Your task to perform on an android device: toggle data saver in the chrome app Image 0: 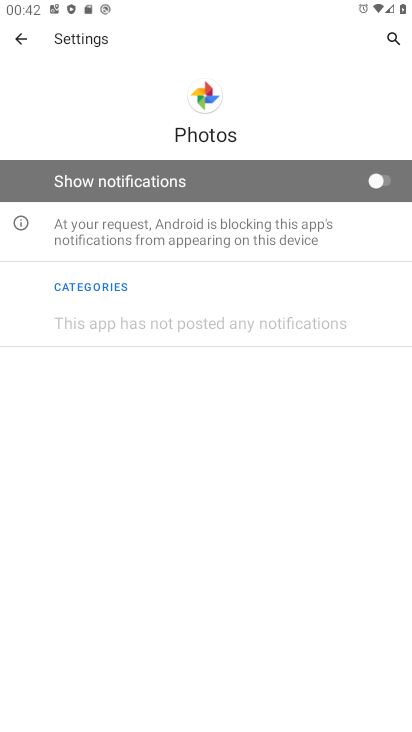
Step 0: press home button
Your task to perform on an android device: toggle data saver in the chrome app Image 1: 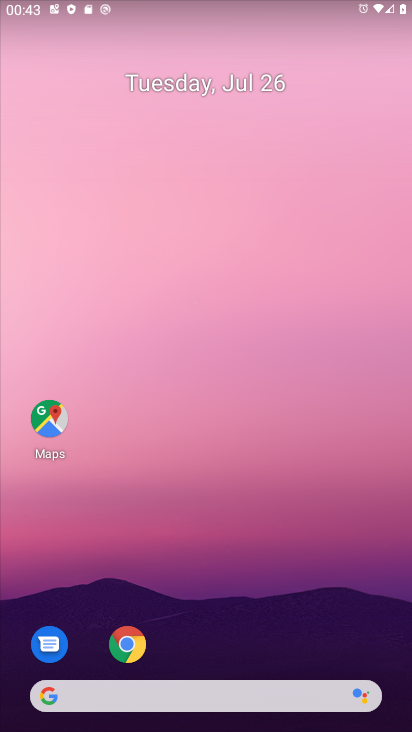
Step 1: drag from (269, 452) to (245, 242)
Your task to perform on an android device: toggle data saver in the chrome app Image 2: 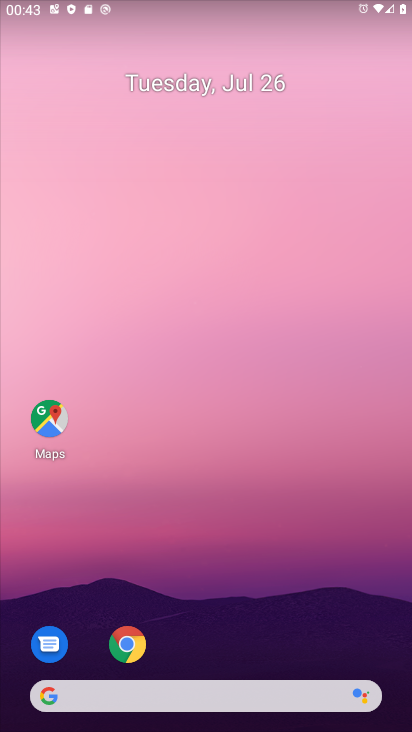
Step 2: drag from (276, 620) to (183, 14)
Your task to perform on an android device: toggle data saver in the chrome app Image 3: 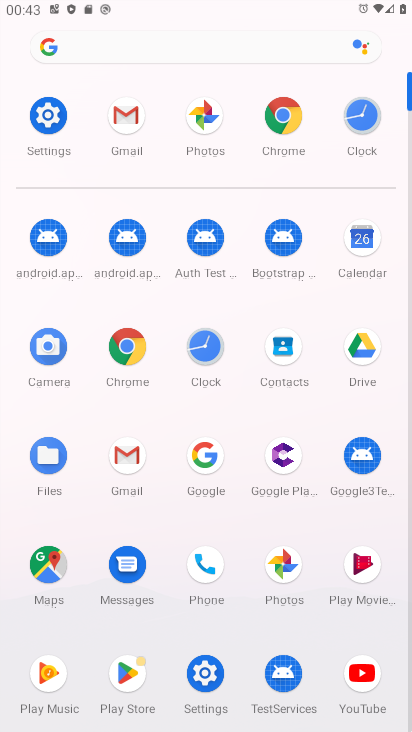
Step 3: click (123, 353)
Your task to perform on an android device: toggle data saver in the chrome app Image 4: 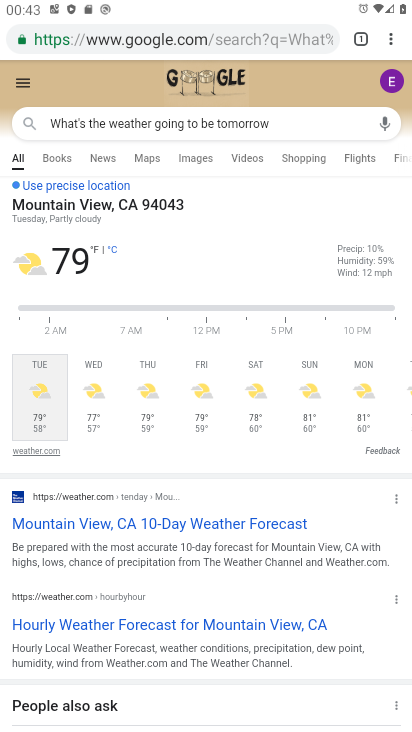
Step 4: click (392, 37)
Your task to perform on an android device: toggle data saver in the chrome app Image 5: 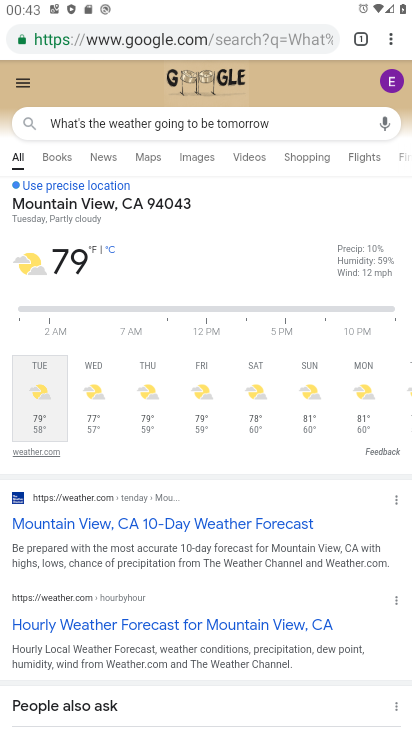
Step 5: click (392, 41)
Your task to perform on an android device: toggle data saver in the chrome app Image 6: 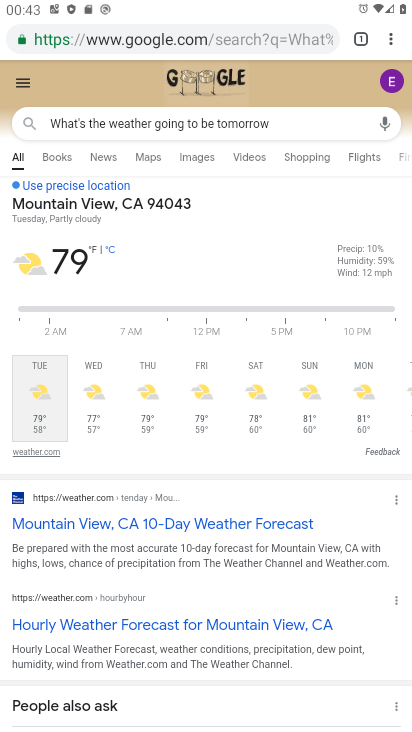
Step 6: click (392, 41)
Your task to perform on an android device: toggle data saver in the chrome app Image 7: 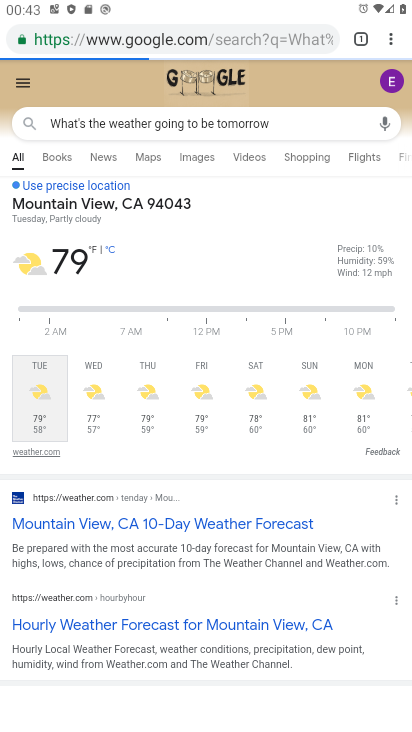
Step 7: click (392, 41)
Your task to perform on an android device: toggle data saver in the chrome app Image 8: 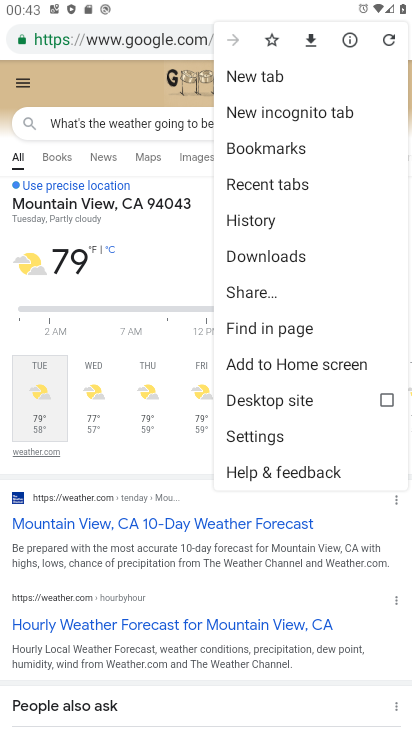
Step 8: click (287, 439)
Your task to perform on an android device: toggle data saver in the chrome app Image 9: 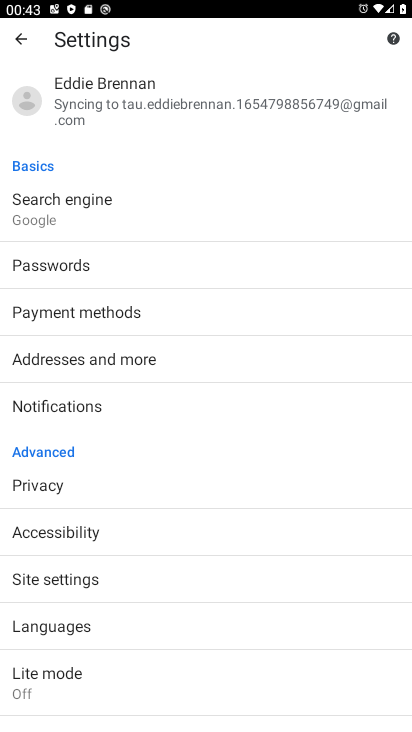
Step 9: drag from (136, 693) to (125, 657)
Your task to perform on an android device: toggle data saver in the chrome app Image 10: 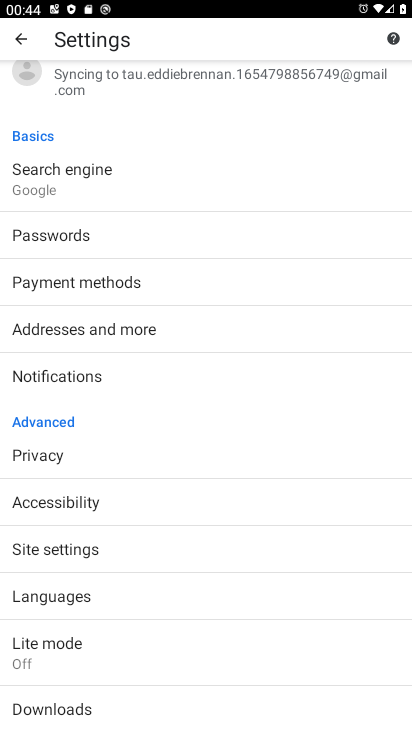
Step 10: click (123, 661)
Your task to perform on an android device: toggle data saver in the chrome app Image 11: 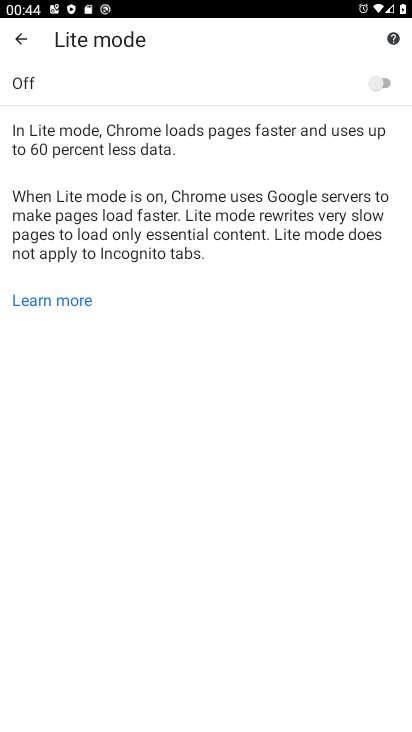
Step 11: click (363, 91)
Your task to perform on an android device: toggle data saver in the chrome app Image 12: 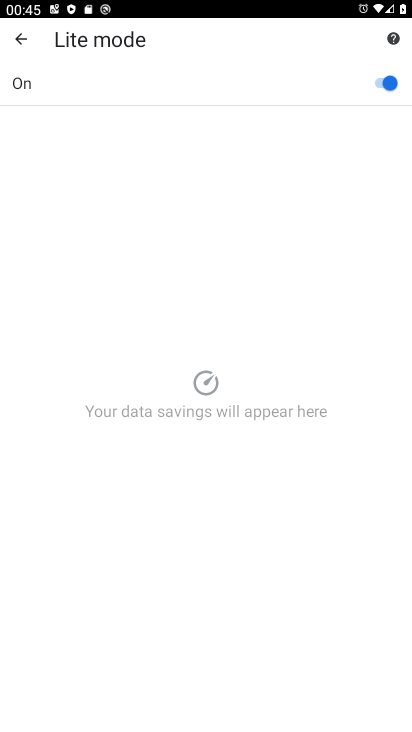
Step 12: task complete